Your task to perform on an android device: Go to Wikipedia Image 0: 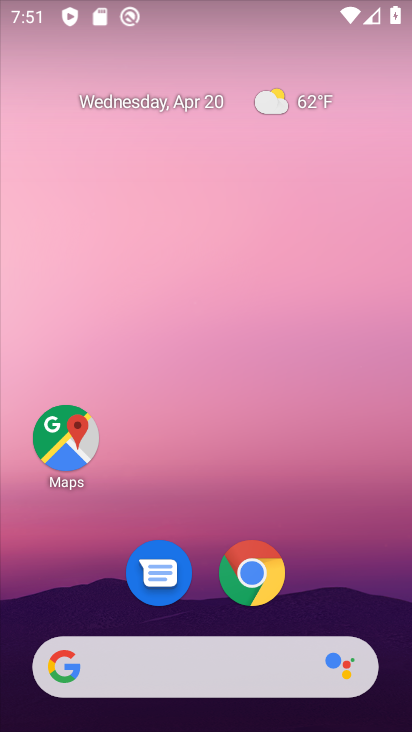
Step 0: click (259, 585)
Your task to perform on an android device: Go to Wikipedia Image 1: 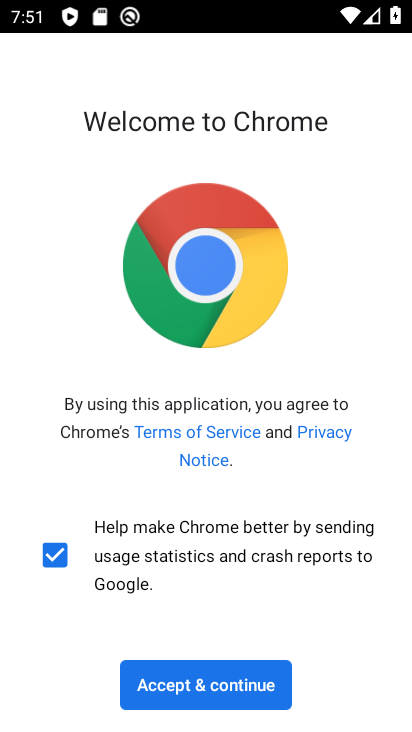
Step 1: click (224, 691)
Your task to perform on an android device: Go to Wikipedia Image 2: 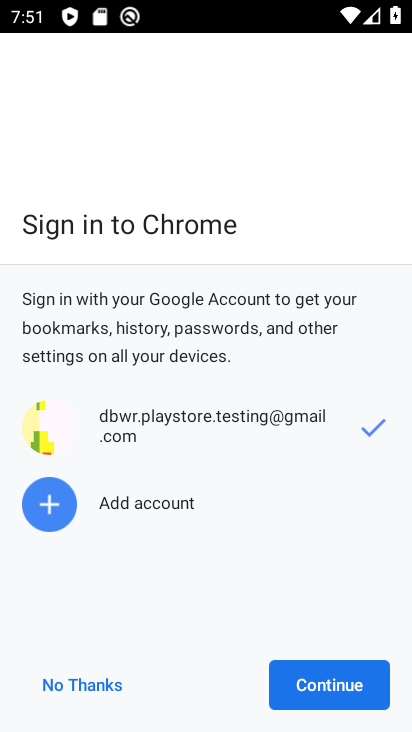
Step 2: click (332, 688)
Your task to perform on an android device: Go to Wikipedia Image 3: 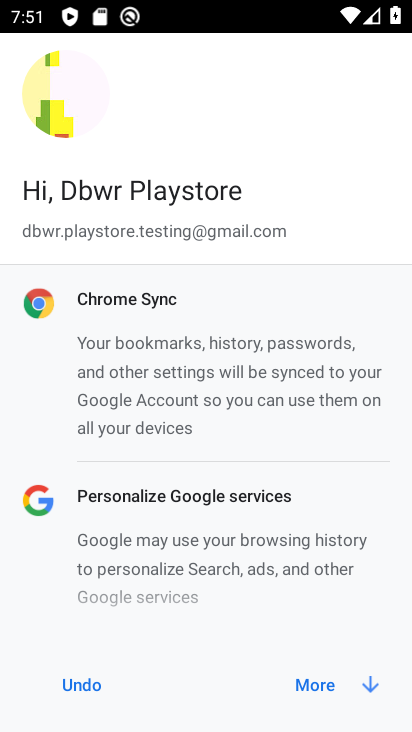
Step 3: click (332, 688)
Your task to perform on an android device: Go to Wikipedia Image 4: 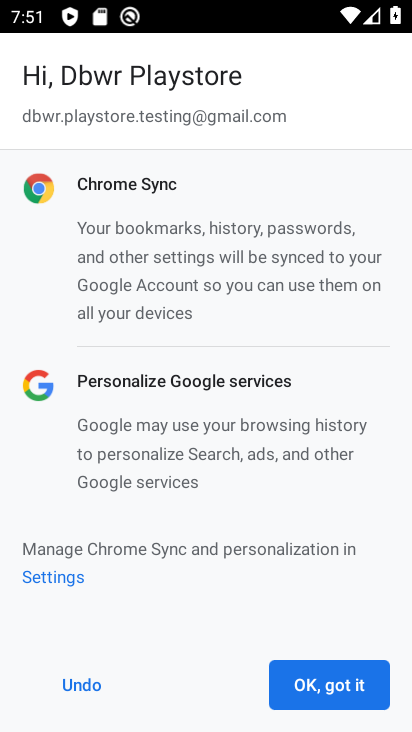
Step 4: click (332, 686)
Your task to perform on an android device: Go to Wikipedia Image 5: 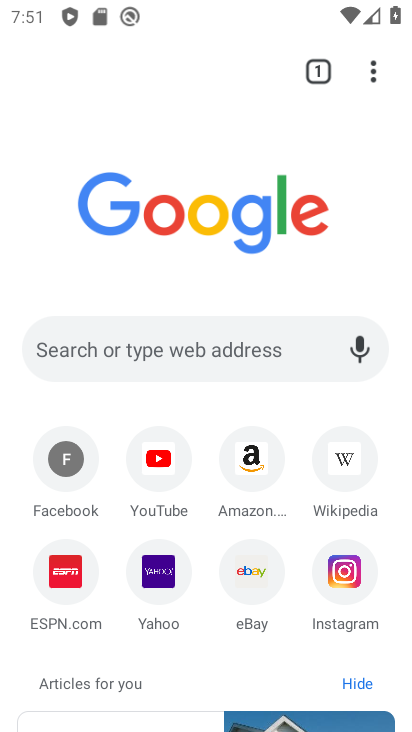
Step 5: click (351, 459)
Your task to perform on an android device: Go to Wikipedia Image 6: 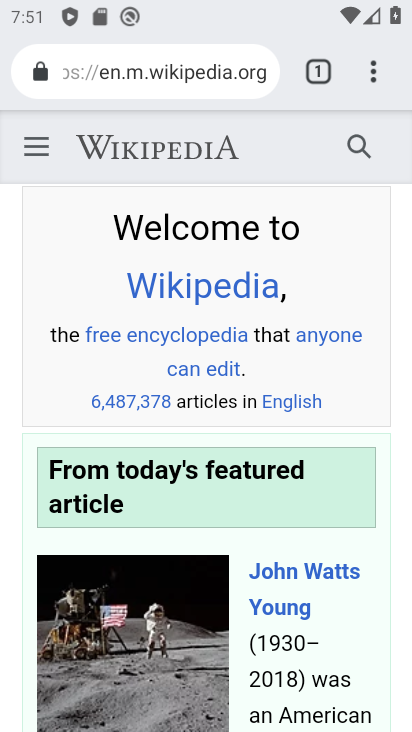
Step 6: task complete